Your task to perform on an android device: turn on showing notifications on the lock screen Image 0: 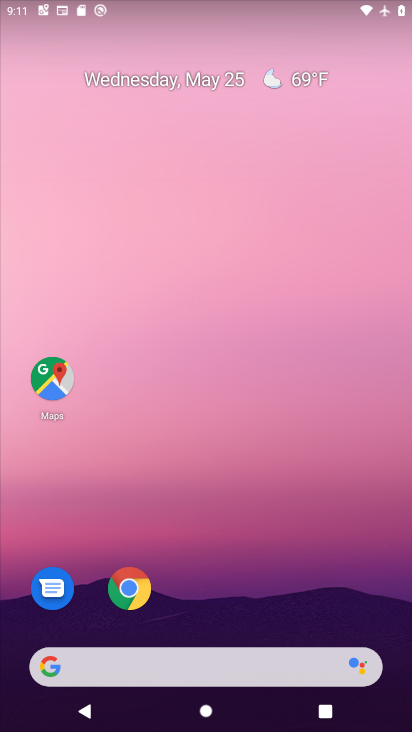
Step 0: drag from (312, 610) to (329, 127)
Your task to perform on an android device: turn on showing notifications on the lock screen Image 1: 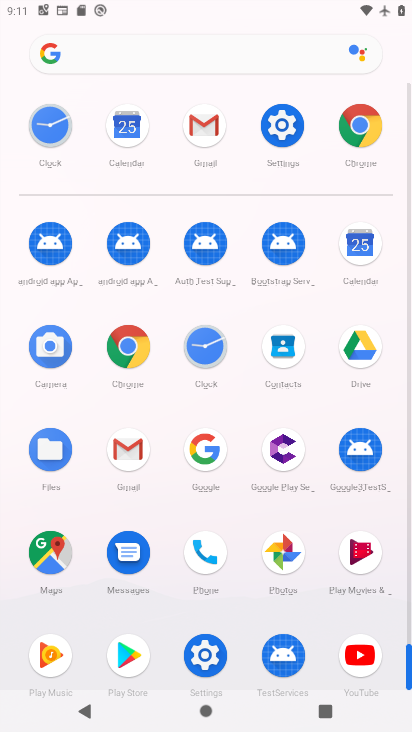
Step 1: click (283, 139)
Your task to perform on an android device: turn on showing notifications on the lock screen Image 2: 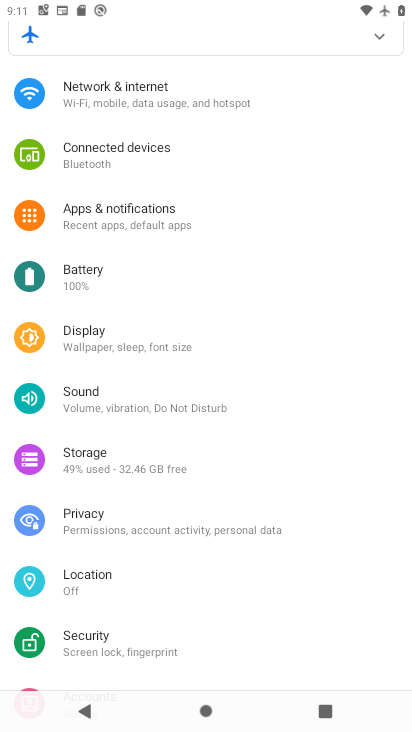
Step 2: drag from (337, 512) to (353, 390)
Your task to perform on an android device: turn on showing notifications on the lock screen Image 3: 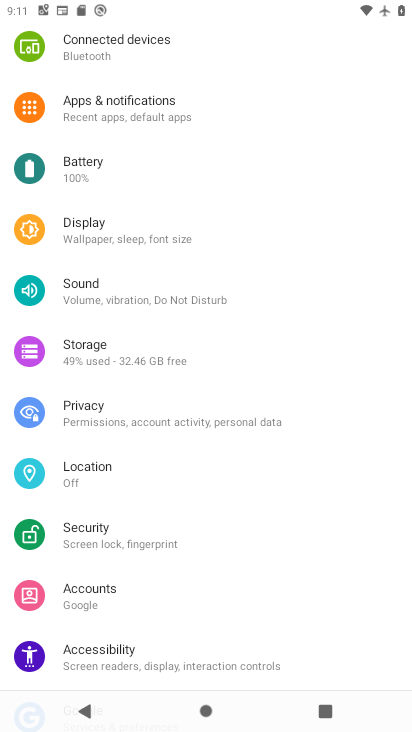
Step 3: drag from (349, 582) to (355, 379)
Your task to perform on an android device: turn on showing notifications on the lock screen Image 4: 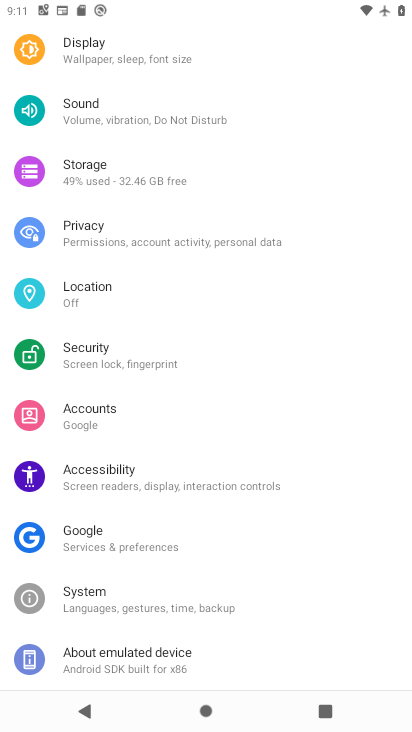
Step 4: drag from (351, 396) to (345, 477)
Your task to perform on an android device: turn on showing notifications on the lock screen Image 5: 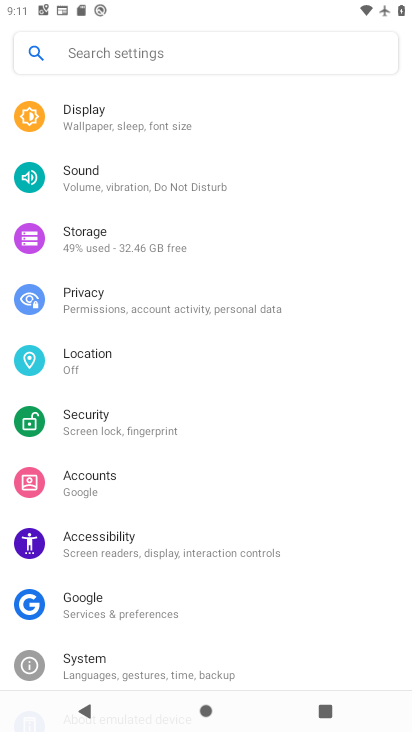
Step 5: drag from (345, 362) to (350, 449)
Your task to perform on an android device: turn on showing notifications on the lock screen Image 6: 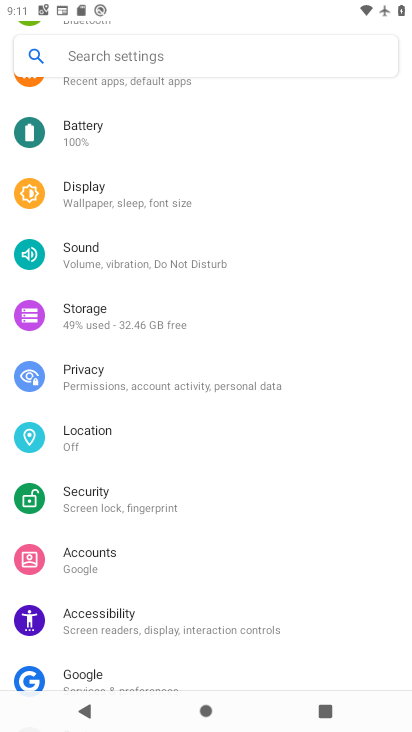
Step 6: drag from (324, 360) to (320, 444)
Your task to perform on an android device: turn on showing notifications on the lock screen Image 7: 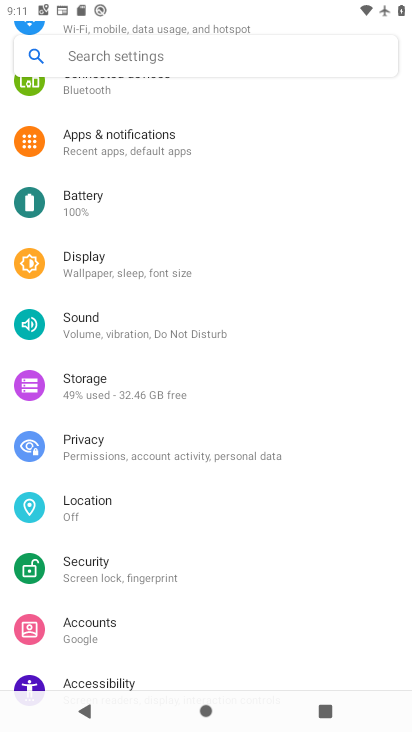
Step 7: drag from (327, 336) to (328, 427)
Your task to perform on an android device: turn on showing notifications on the lock screen Image 8: 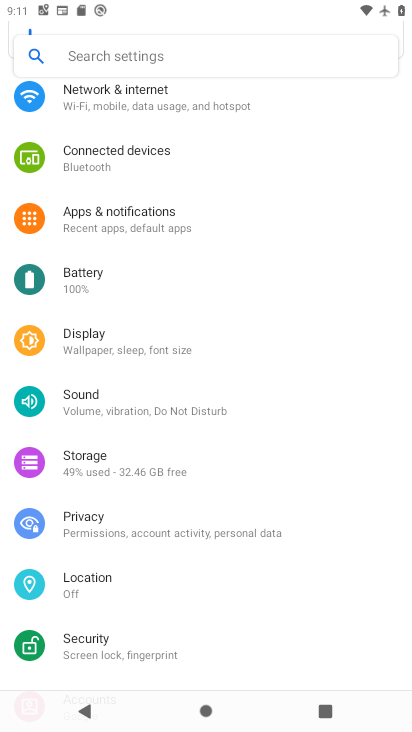
Step 8: drag from (313, 344) to (303, 435)
Your task to perform on an android device: turn on showing notifications on the lock screen Image 9: 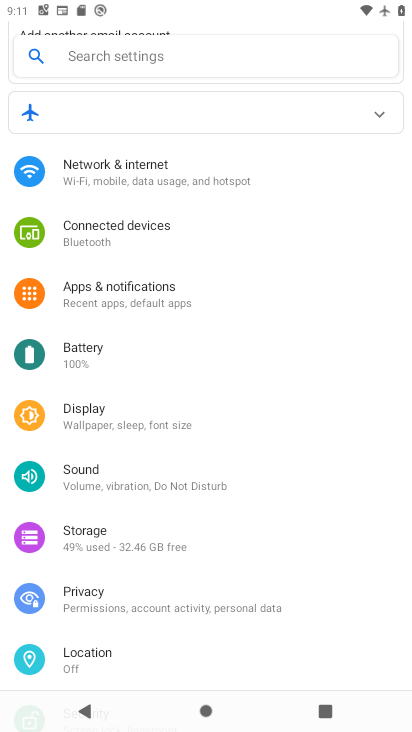
Step 9: drag from (288, 341) to (296, 472)
Your task to perform on an android device: turn on showing notifications on the lock screen Image 10: 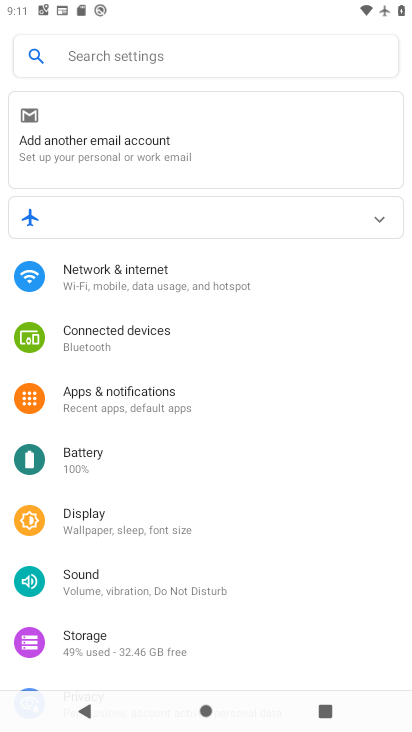
Step 10: drag from (319, 345) to (328, 469)
Your task to perform on an android device: turn on showing notifications on the lock screen Image 11: 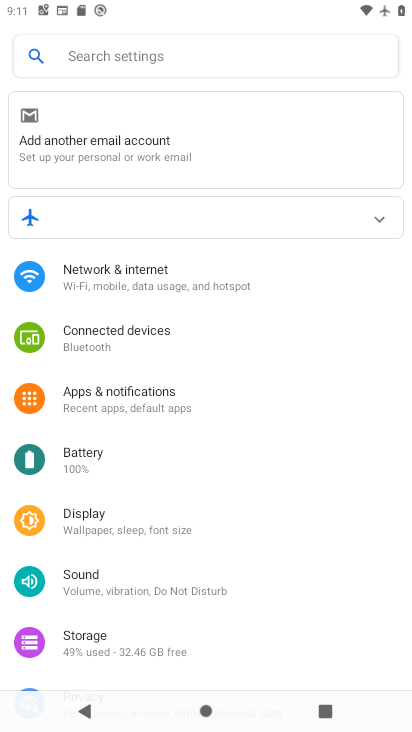
Step 11: click (202, 411)
Your task to perform on an android device: turn on showing notifications on the lock screen Image 12: 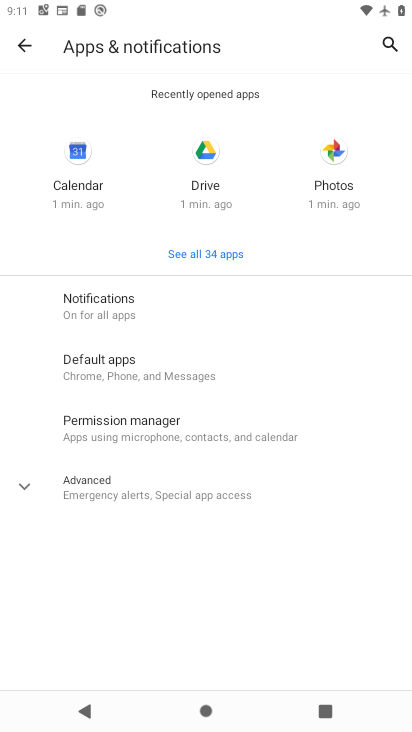
Step 12: click (130, 299)
Your task to perform on an android device: turn on showing notifications on the lock screen Image 13: 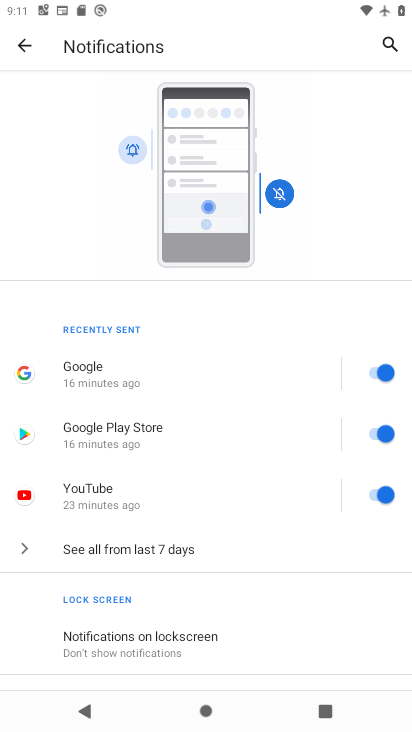
Step 13: drag from (266, 539) to (267, 424)
Your task to perform on an android device: turn on showing notifications on the lock screen Image 14: 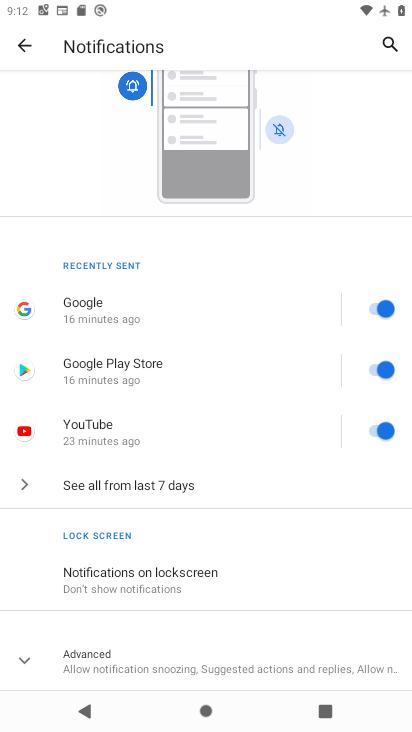
Step 14: drag from (285, 540) to (283, 408)
Your task to perform on an android device: turn on showing notifications on the lock screen Image 15: 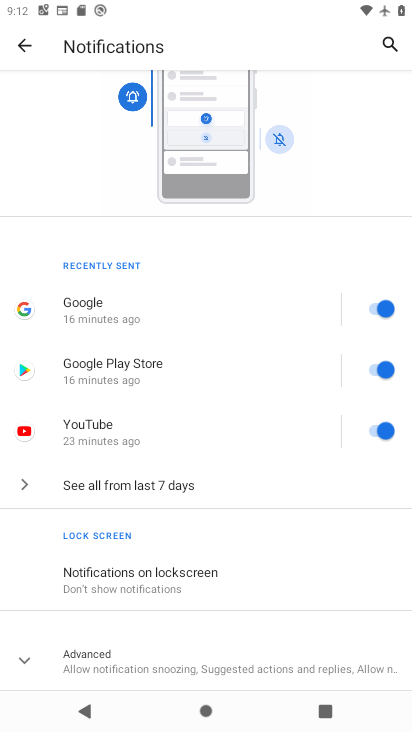
Step 15: click (211, 581)
Your task to perform on an android device: turn on showing notifications on the lock screen Image 16: 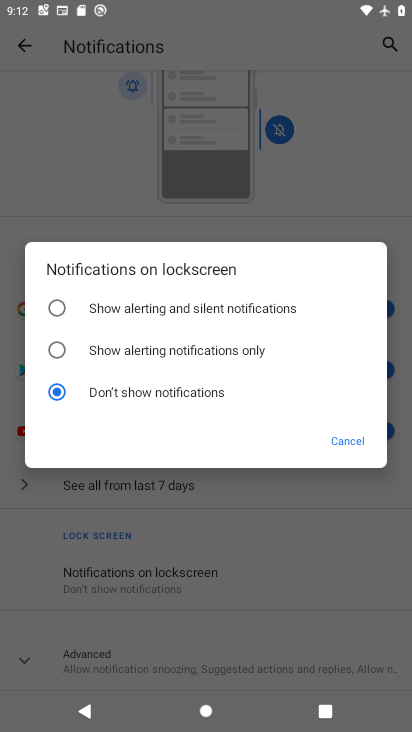
Step 16: click (68, 307)
Your task to perform on an android device: turn on showing notifications on the lock screen Image 17: 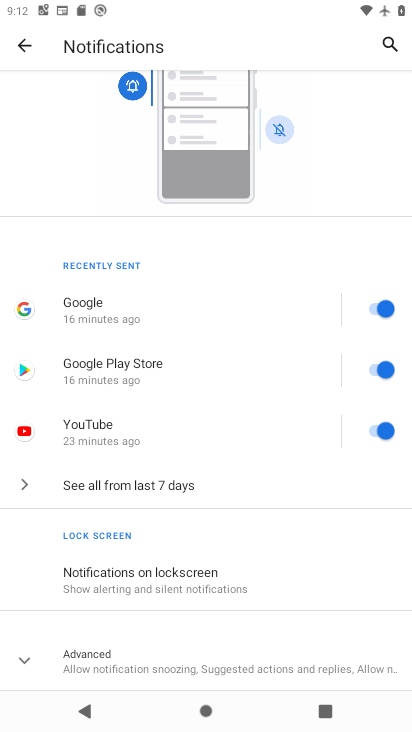
Step 17: task complete